Your task to perform on an android device: Open settings Image 0: 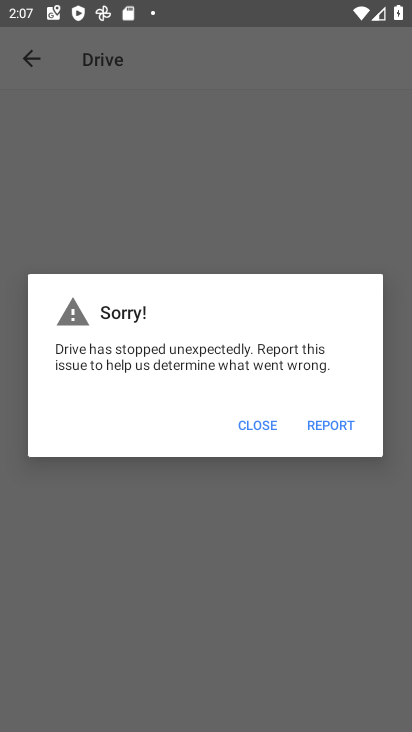
Step 0: press home button
Your task to perform on an android device: Open settings Image 1: 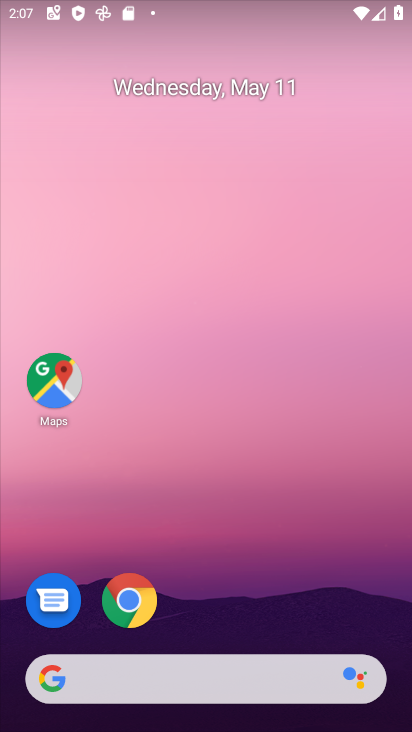
Step 1: drag from (169, 727) to (199, 147)
Your task to perform on an android device: Open settings Image 2: 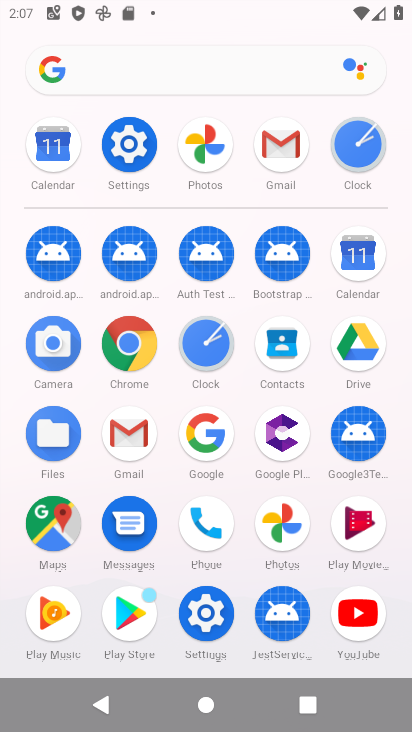
Step 2: click (123, 128)
Your task to perform on an android device: Open settings Image 3: 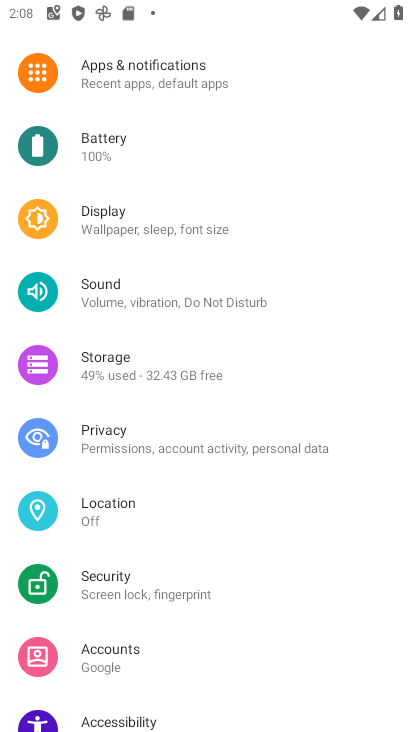
Step 3: task complete